Your task to perform on an android device: empty trash in google photos Image 0: 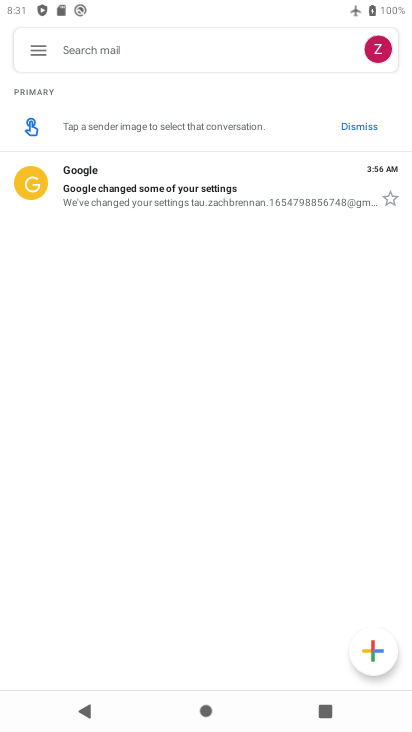
Step 0: press home button
Your task to perform on an android device: empty trash in google photos Image 1: 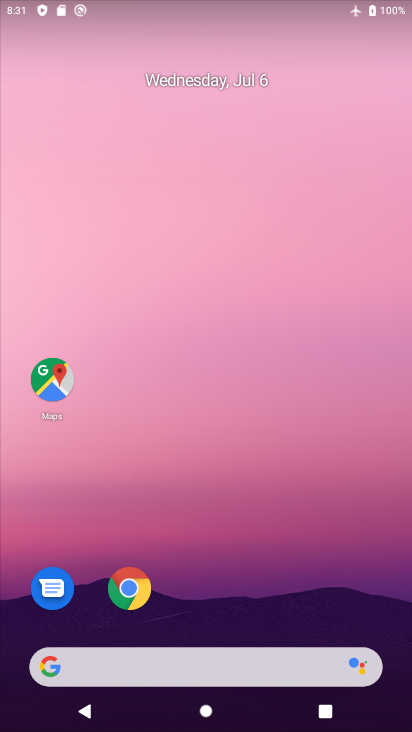
Step 1: drag from (207, 527) to (175, 126)
Your task to perform on an android device: empty trash in google photos Image 2: 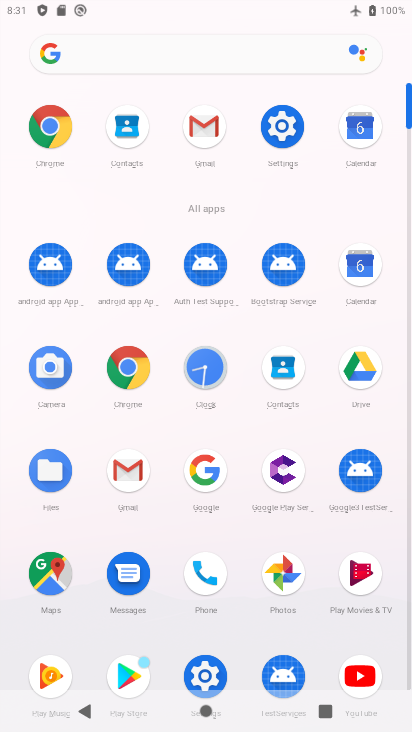
Step 2: click (278, 564)
Your task to perform on an android device: empty trash in google photos Image 3: 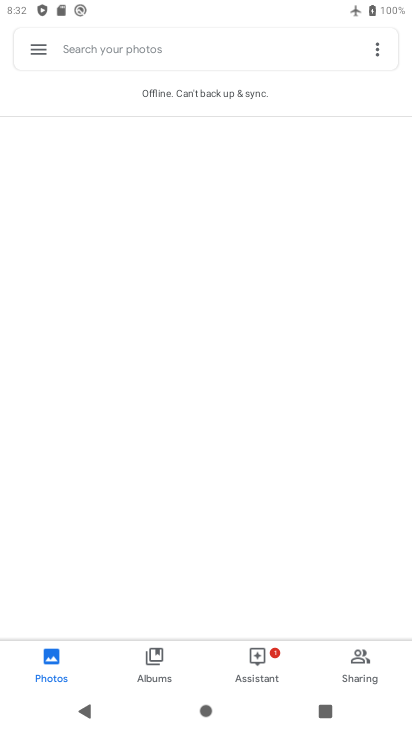
Step 3: click (32, 43)
Your task to perform on an android device: empty trash in google photos Image 4: 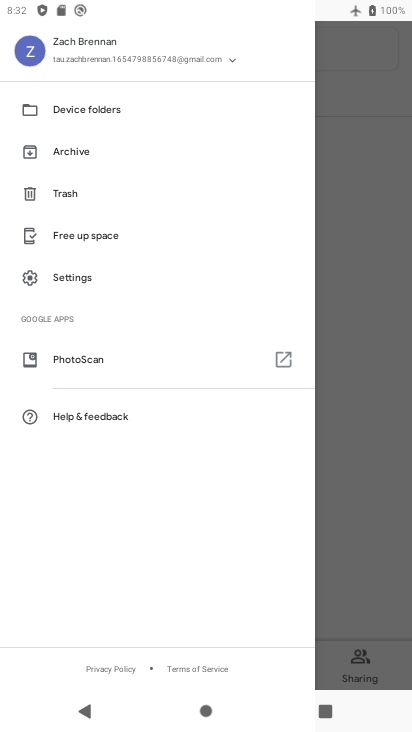
Step 4: click (82, 275)
Your task to perform on an android device: empty trash in google photos Image 5: 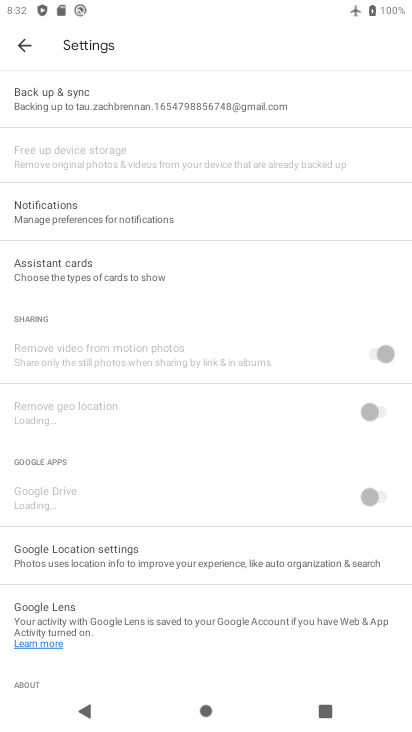
Step 5: click (29, 41)
Your task to perform on an android device: empty trash in google photos Image 6: 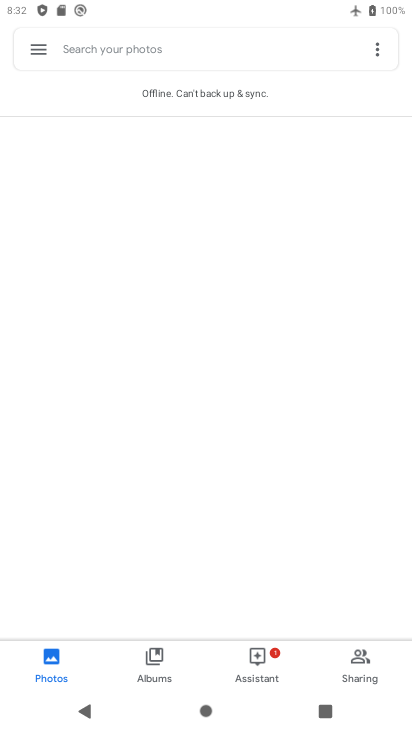
Step 6: click (41, 43)
Your task to perform on an android device: empty trash in google photos Image 7: 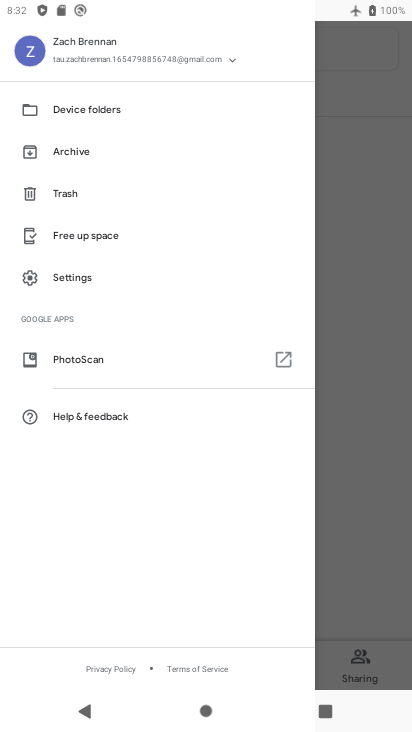
Step 7: click (69, 196)
Your task to perform on an android device: empty trash in google photos Image 8: 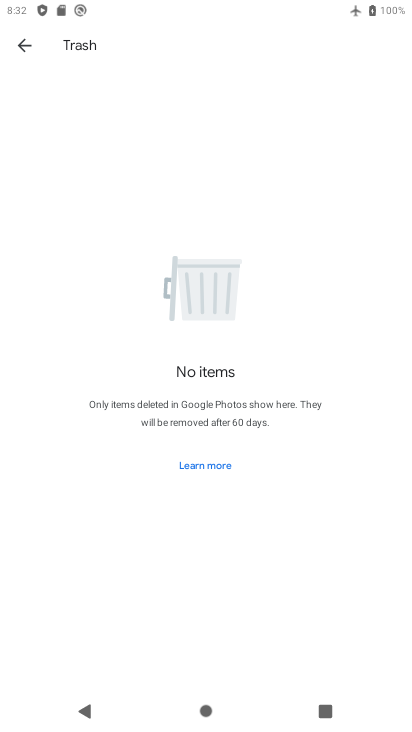
Step 8: task complete